Your task to perform on an android device: Show me recent news Image 0: 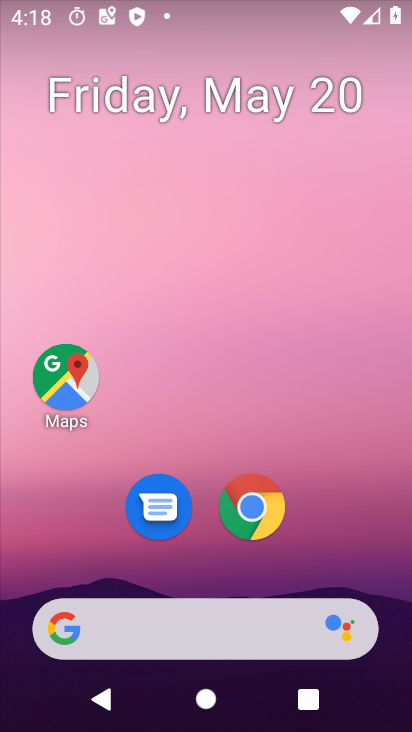
Step 0: drag from (353, 537) to (234, 126)
Your task to perform on an android device: Show me recent news Image 1: 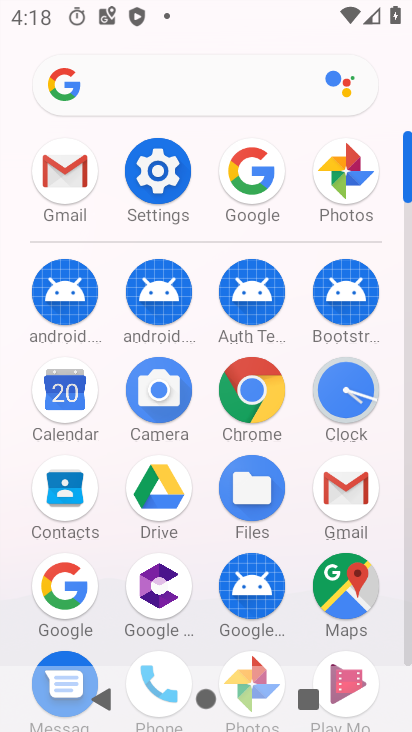
Step 1: click (61, 581)
Your task to perform on an android device: Show me recent news Image 2: 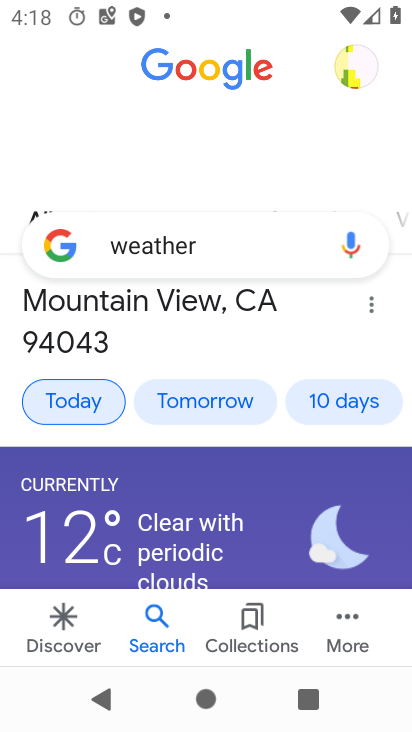
Step 2: click (195, 252)
Your task to perform on an android device: Show me recent news Image 3: 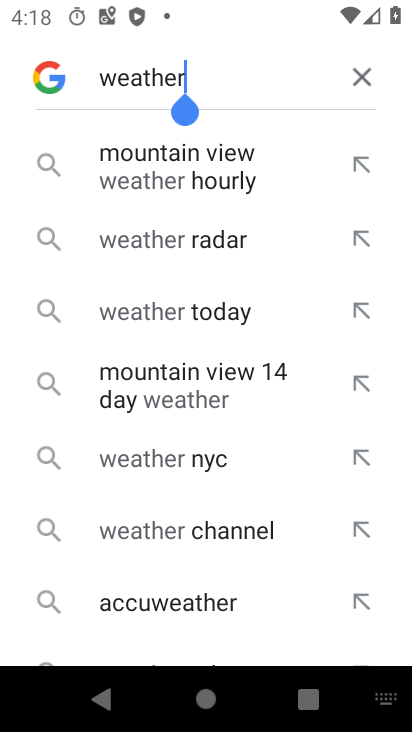
Step 3: click (363, 71)
Your task to perform on an android device: Show me recent news Image 4: 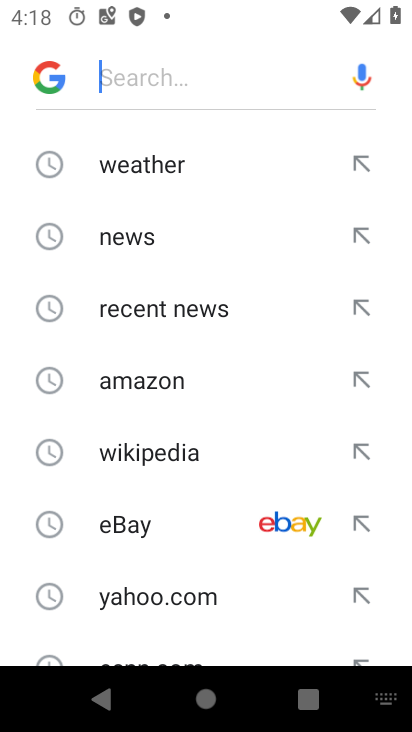
Step 4: type "recent news"
Your task to perform on an android device: Show me recent news Image 5: 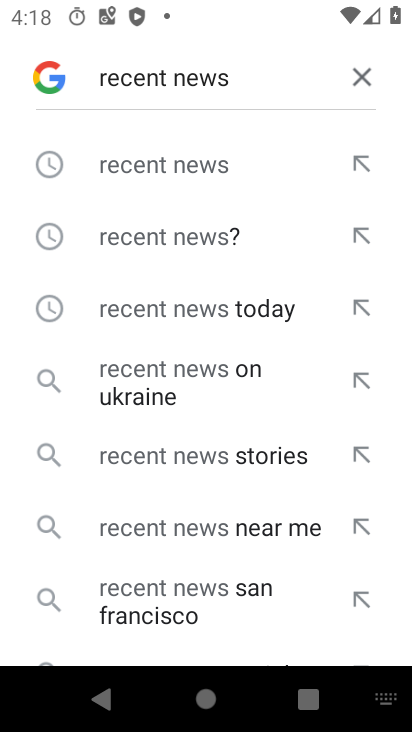
Step 5: click (194, 164)
Your task to perform on an android device: Show me recent news Image 6: 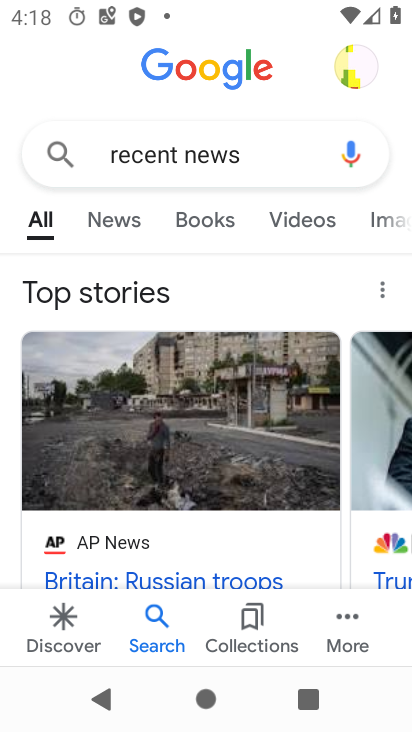
Step 6: task complete